Your task to perform on an android device: star an email in the gmail app Image 0: 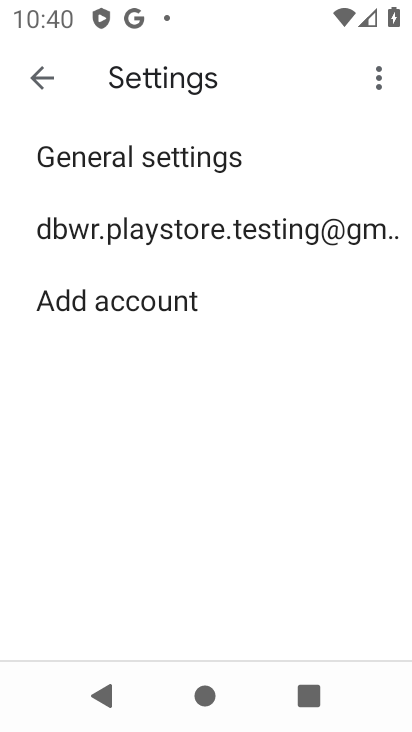
Step 0: click (39, 85)
Your task to perform on an android device: star an email in the gmail app Image 1: 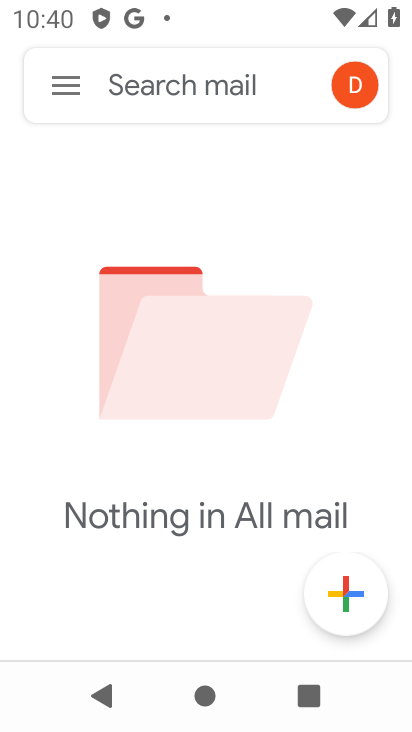
Step 1: task complete